Your task to perform on an android device: Open sound settings Image 0: 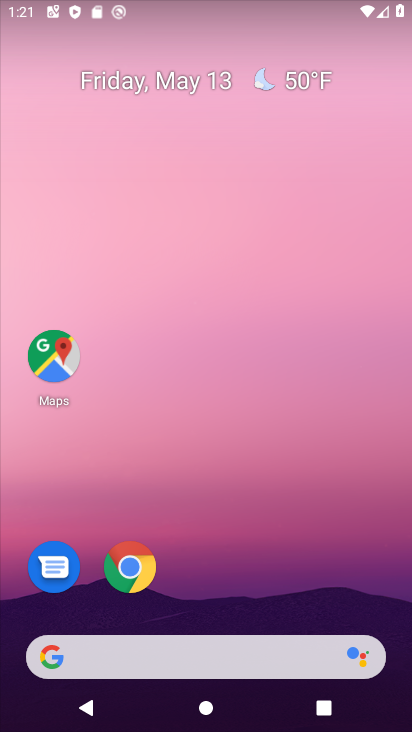
Step 0: drag from (216, 580) to (318, 225)
Your task to perform on an android device: Open sound settings Image 1: 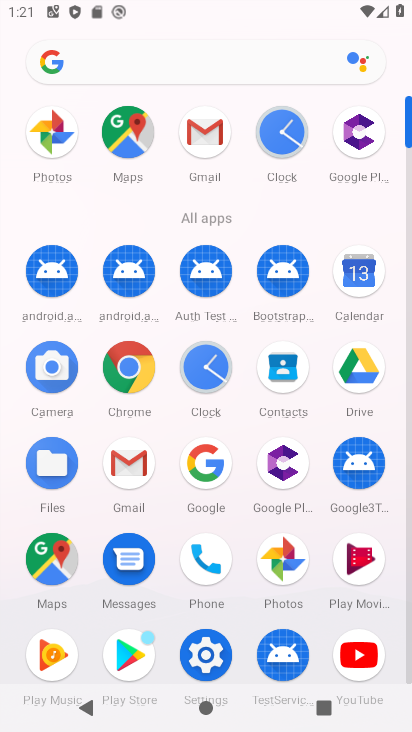
Step 1: click (203, 660)
Your task to perform on an android device: Open sound settings Image 2: 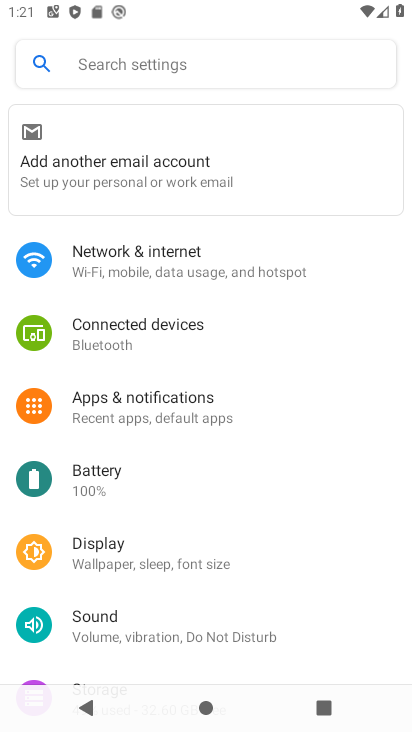
Step 2: click (132, 629)
Your task to perform on an android device: Open sound settings Image 3: 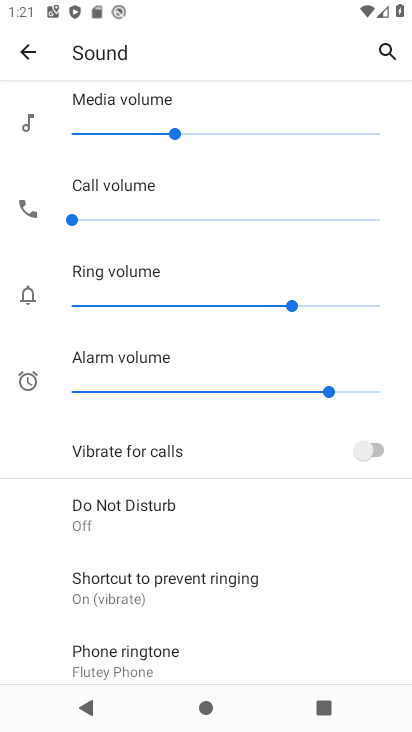
Step 3: drag from (124, 668) to (156, 449)
Your task to perform on an android device: Open sound settings Image 4: 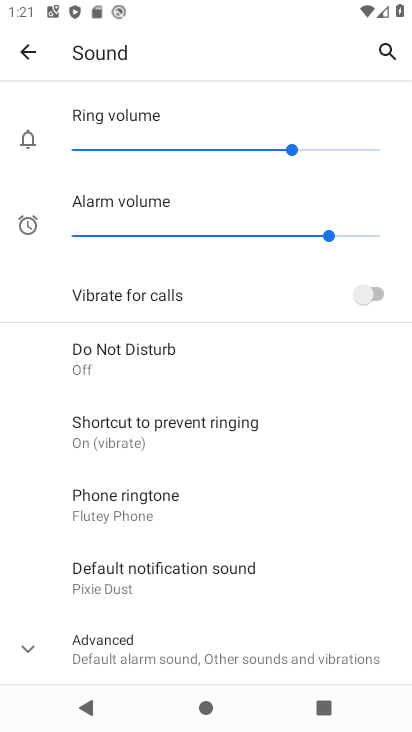
Step 4: click (144, 643)
Your task to perform on an android device: Open sound settings Image 5: 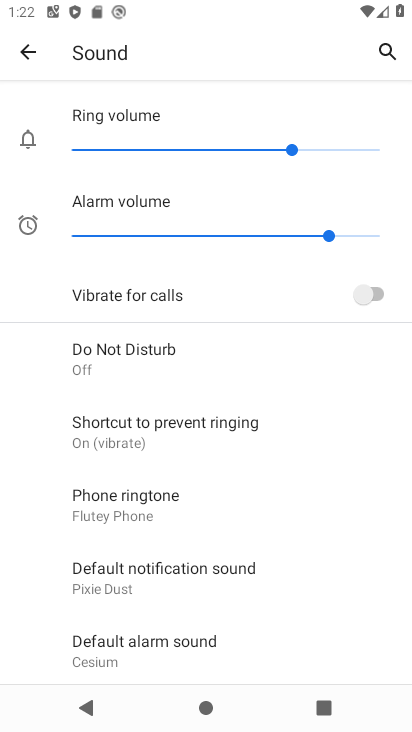
Step 5: task complete